Your task to perform on an android device: Go to notification settings Image 0: 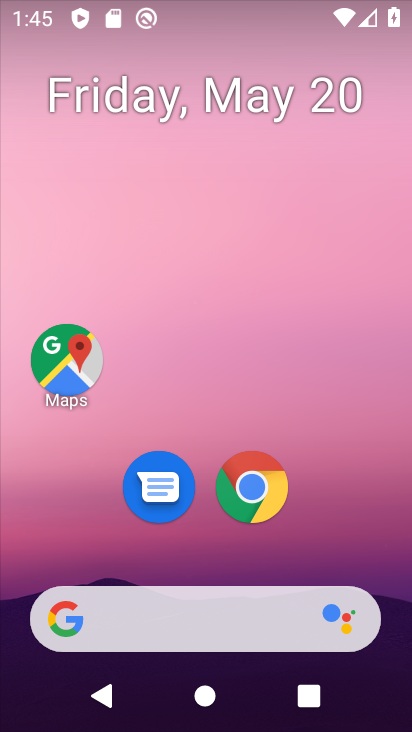
Step 0: drag from (387, 458) to (377, 62)
Your task to perform on an android device: Go to notification settings Image 1: 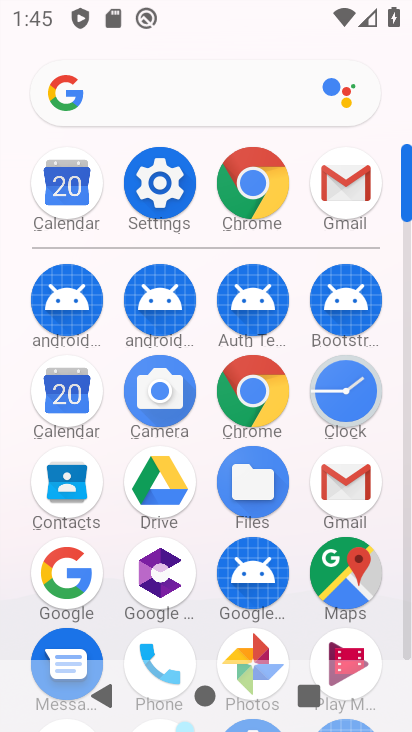
Step 1: click (179, 222)
Your task to perform on an android device: Go to notification settings Image 2: 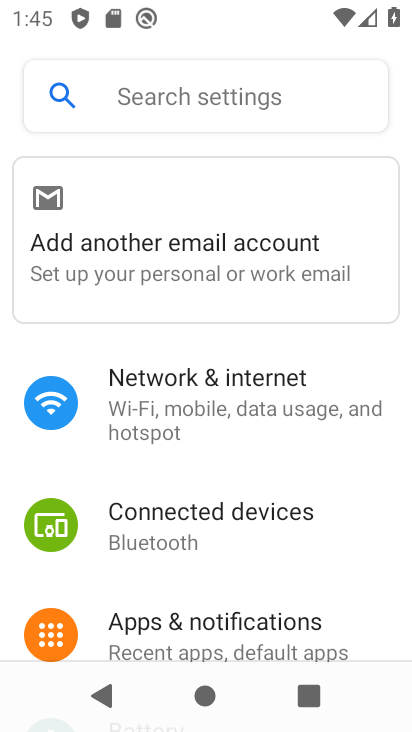
Step 2: drag from (234, 619) to (266, 300)
Your task to perform on an android device: Go to notification settings Image 3: 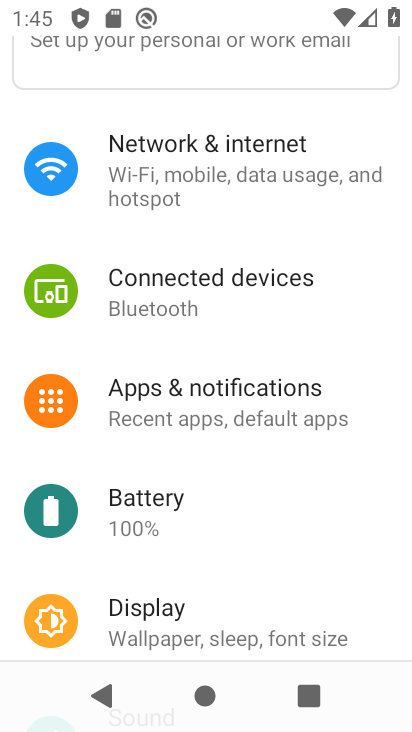
Step 3: click (265, 429)
Your task to perform on an android device: Go to notification settings Image 4: 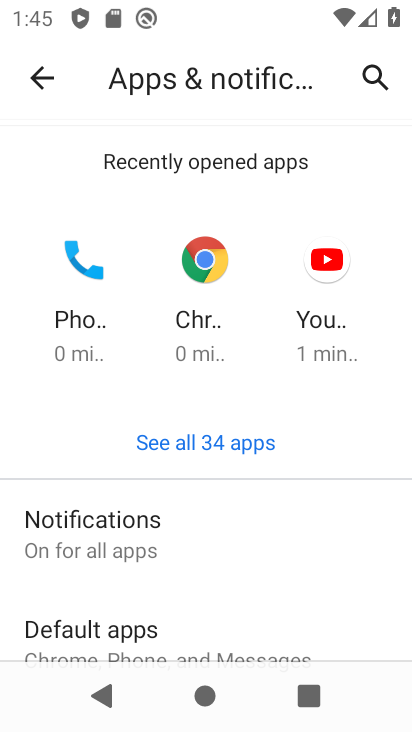
Step 4: task complete